Your task to perform on an android device: Open Google Maps Image 0: 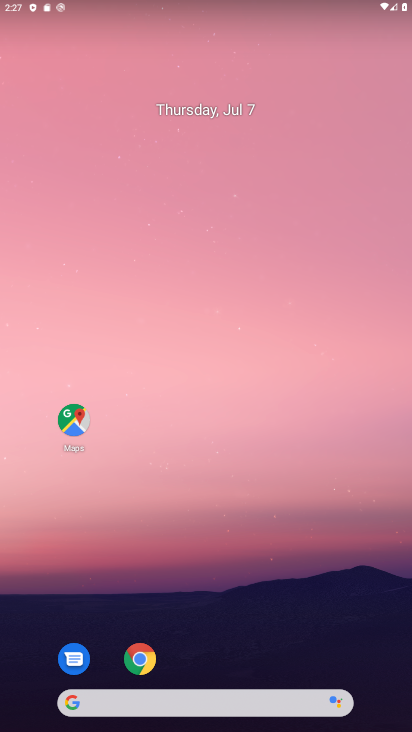
Step 0: drag from (22, 708) to (363, 575)
Your task to perform on an android device: Open Google Maps Image 1: 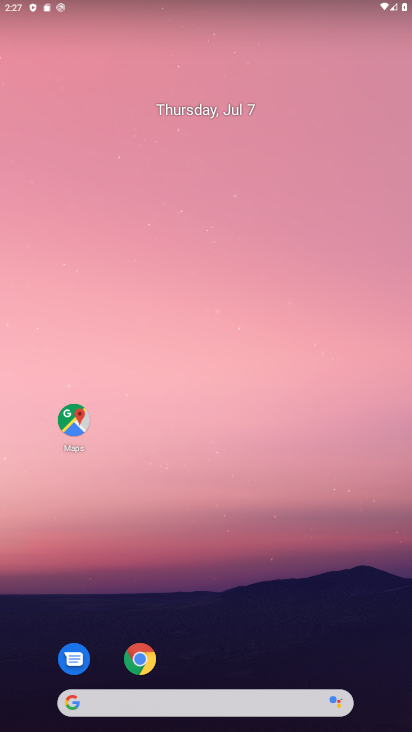
Step 1: click (63, 424)
Your task to perform on an android device: Open Google Maps Image 2: 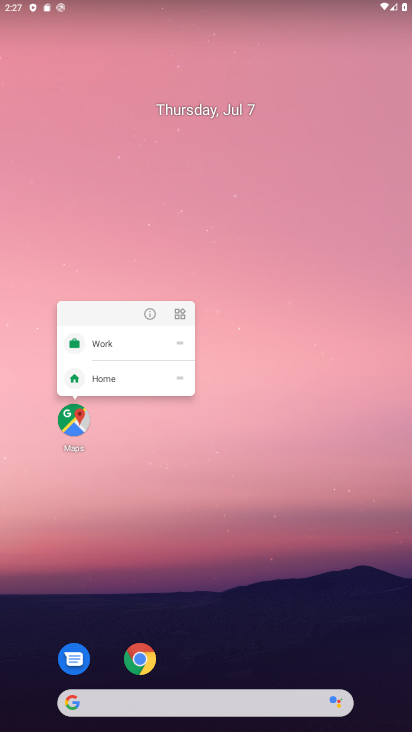
Step 2: click (67, 425)
Your task to perform on an android device: Open Google Maps Image 3: 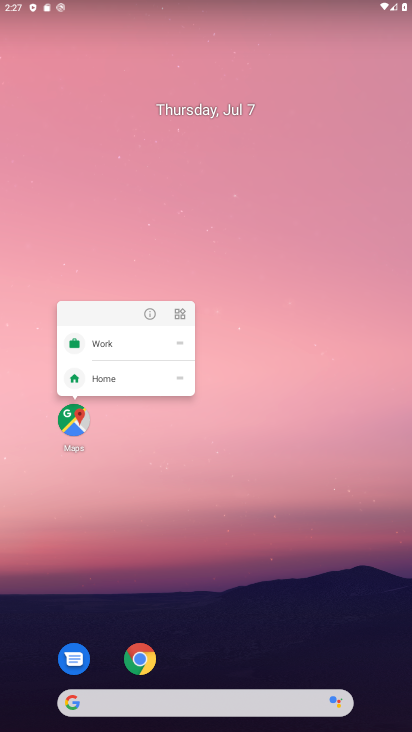
Step 3: click (81, 436)
Your task to perform on an android device: Open Google Maps Image 4: 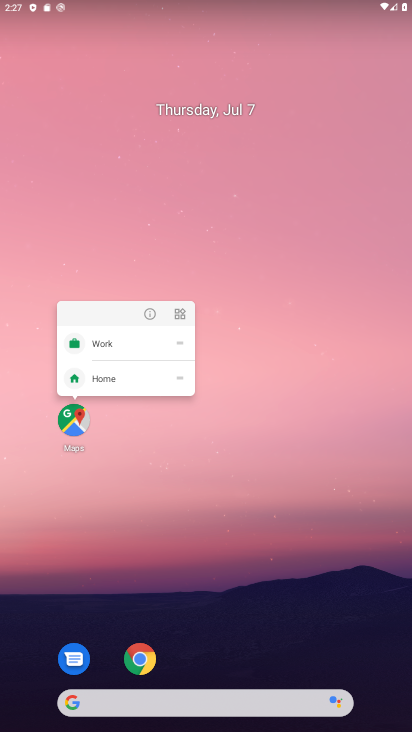
Step 4: click (67, 431)
Your task to perform on an android device: Open Google Maps Image 5: 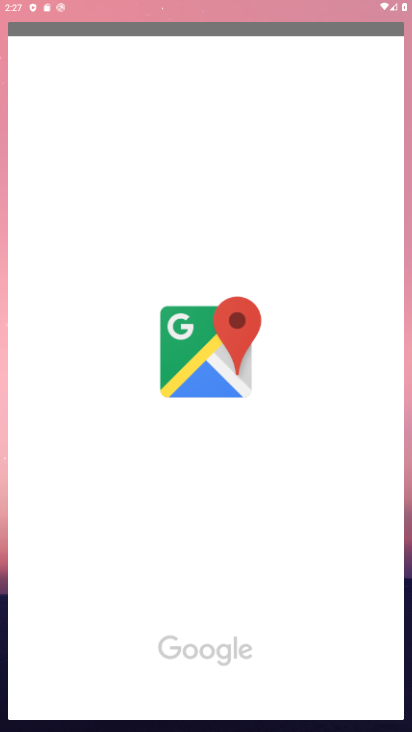
Step 5: click (67, 431)
Your task to perform on an android device: Open Google Maps Image 6: 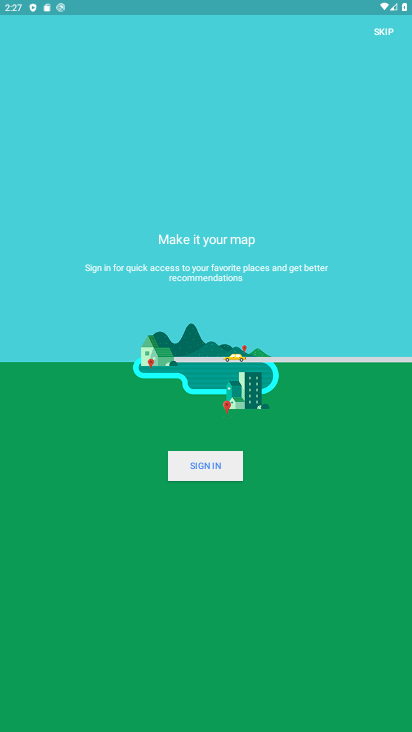
Step 6: click (193, 467)
Your task to perform on an android device: Open Google Maps Image 7: 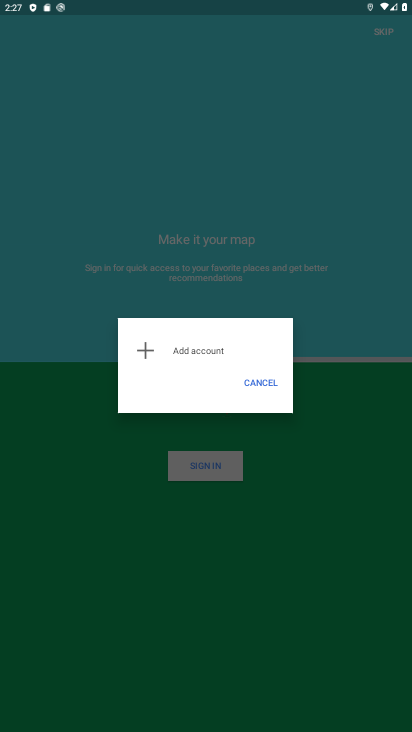
Step 7: click (250, 385)
Your task to perform on an android device: Open Google Maps Image 8: 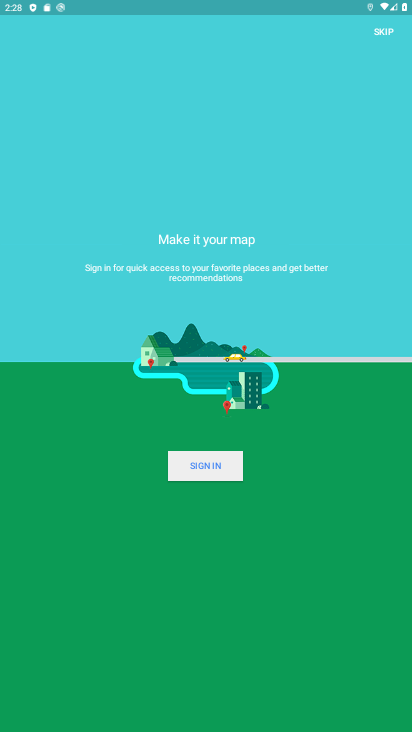
Step 8: task complete